Your task to perform on an android device: Show me the alarms in the clock app Image 0: 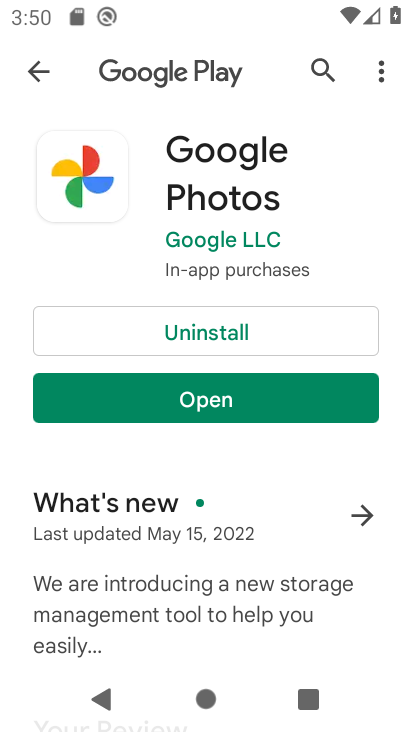
Step 0: press home button
Your task to perform on an android device: Show me the alarms in the clock app Image 1: 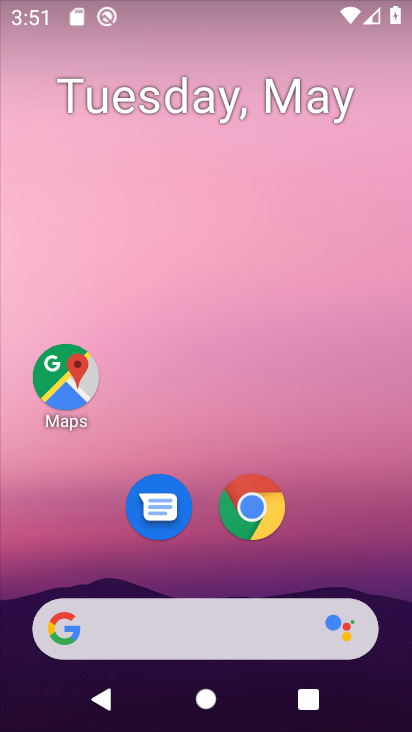
Step 1: drag from (210, 580) to (319, 49)
Your task to perform on an android device: Show me the alarms in the clock app Image 2: 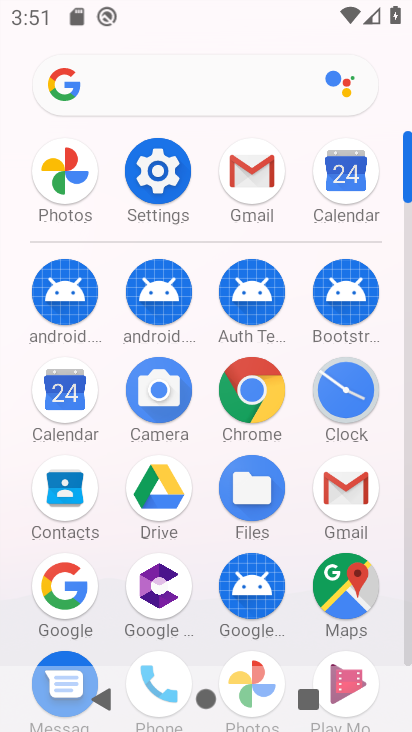
Step 2: click (353, 397)
Your task to perform on an android device: Show me the alarms in the clock app Image 3: 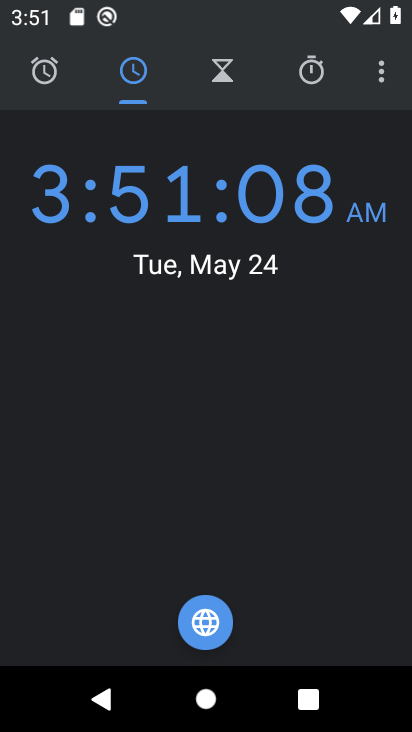
Step 3: click (65, 84)
Your task to perform on an android device: Show me the alarms in the clock app Image 4: 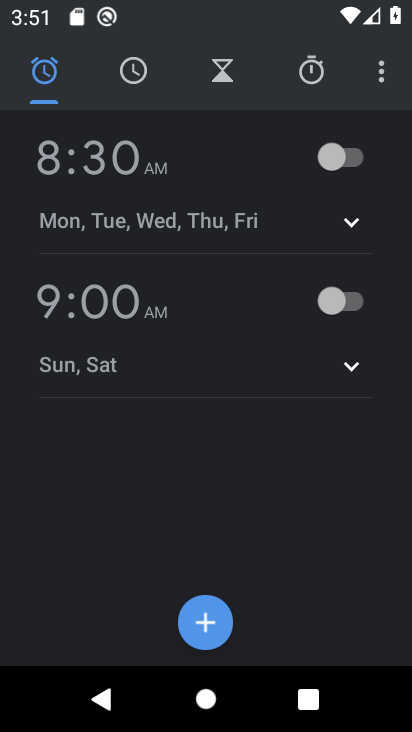
Step 4: task complete